Your task to perform on an android device: Open ESPN.com Image 0: 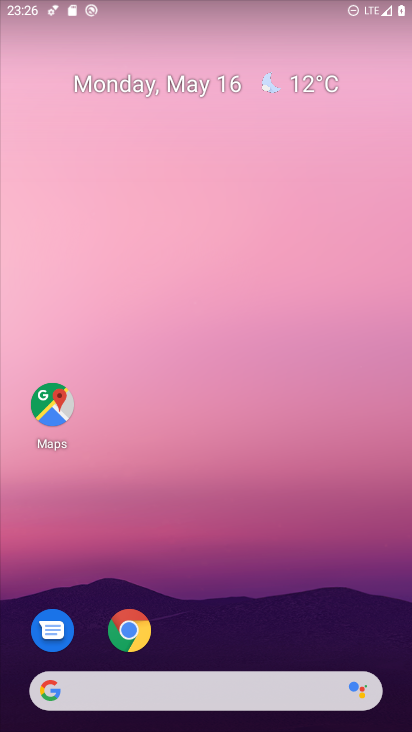
Step 0: click (278, 698)
Your task to perform on an android device: Open ESPN.com Image 1: 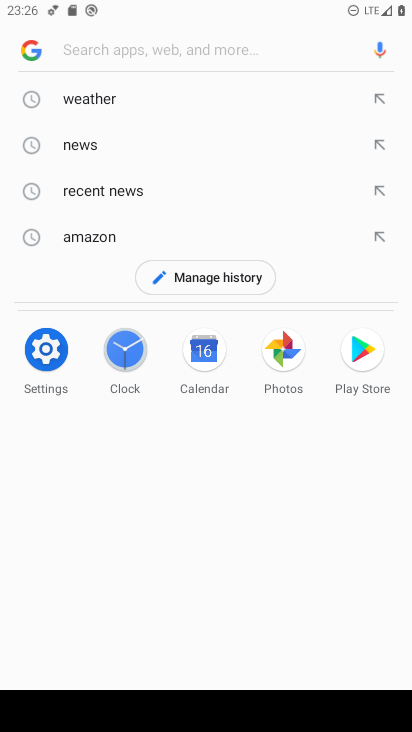
Step 1: type "espn.com"
Your task to perform on an android device: Open ESPN.com Image 2: 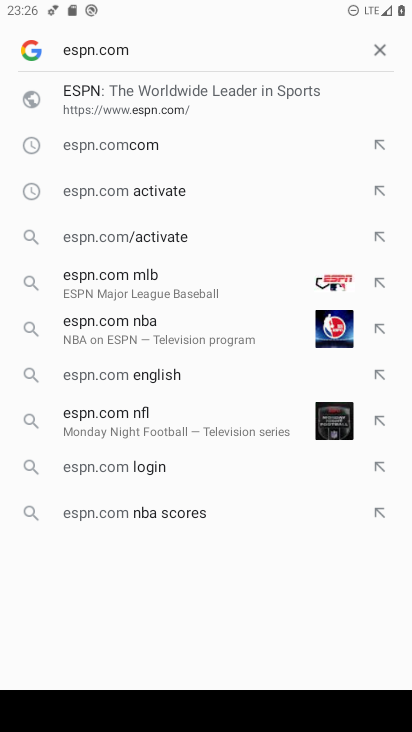
Step 2: click (80, 87)
Your task to perform on an android device: Open ESPN.com Image 3: 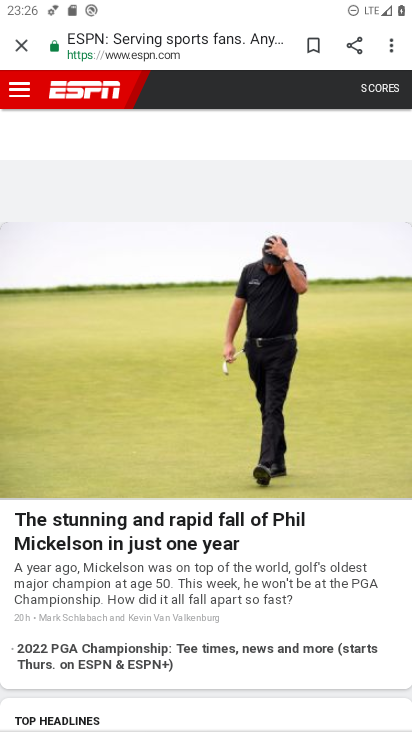
Step 3: task complete